Your task to perform on an android device: Show me productivity apps on the Play Store Image 0: 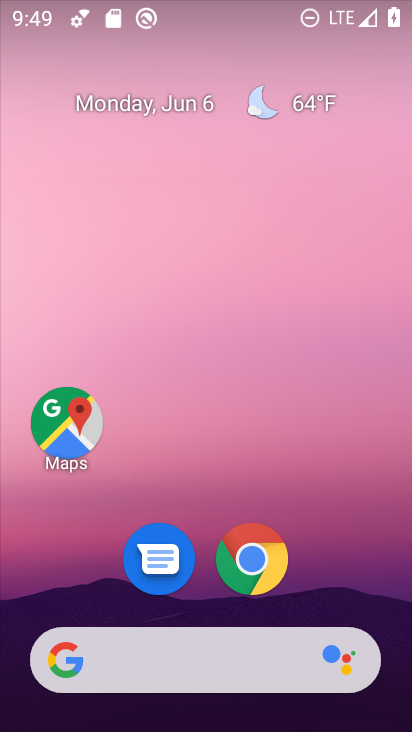
Step 0: drag from (235, 726) to (234, 73)
Your task to perform on an android device: Show me productivity apps on the Play Store Image 1: 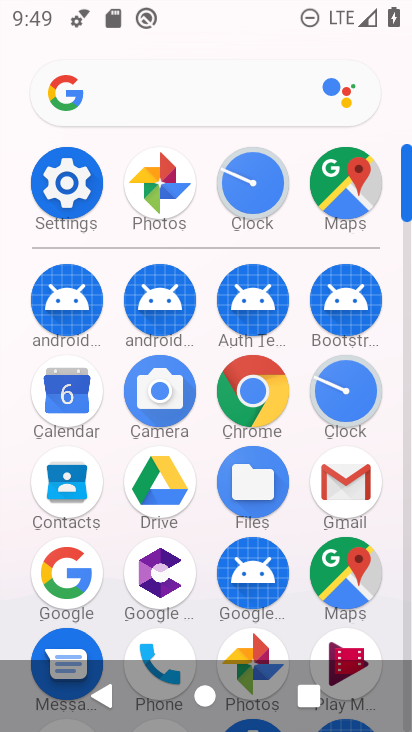
Step 1: drag from (296, 632) to (298, 286)
Your task to perform on an android device: Show me productivity apps on the Play Store Image 2: 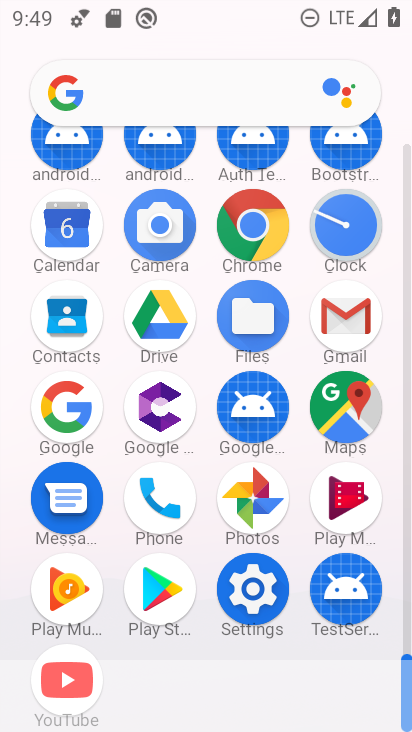
Step 2: click (171, 597)
Your task to perform on an android device: Show me productivity apps on the Play Store Image 3: 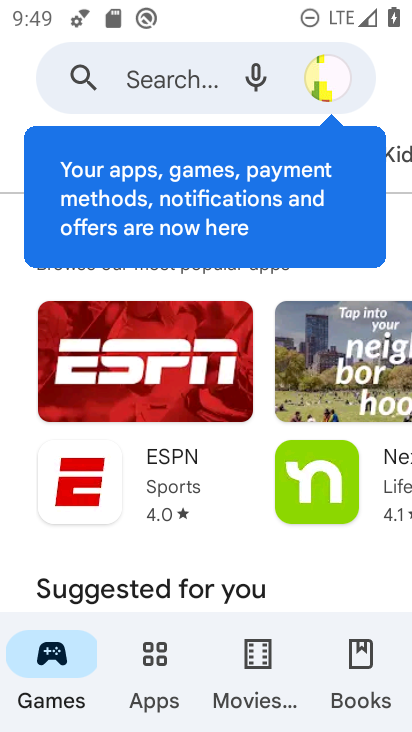
Step 3: click (161, 652)
Your task to perform on an android device: Show me productivity apps on the Play Store Image 4: 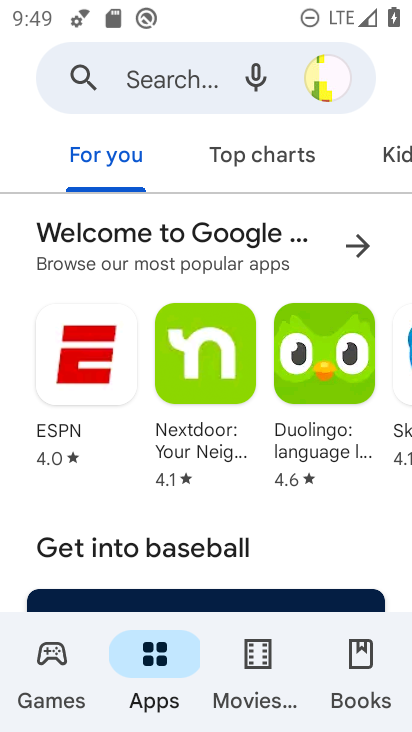
Step 4: drag from (387, 147) to (121, 172)
Your task to perform on an android device: Show me productivity apps on the Play Store Image 5: 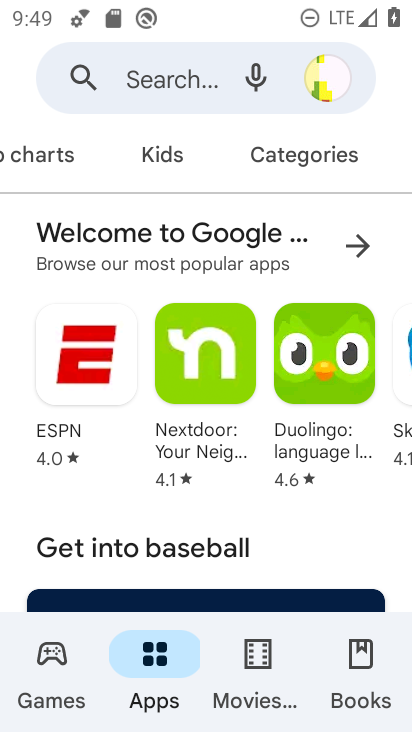
Step 5: click (285, 157)
Your task to perform on an android device: Show me productivity apps on the Play Store Image 6: 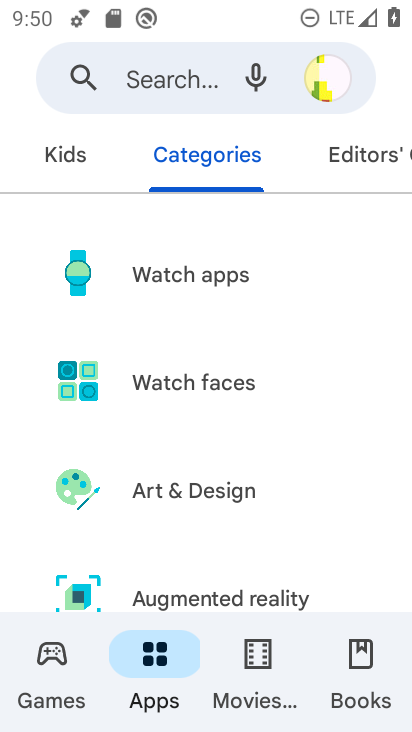
Step 6: drag from (272, 553) to (246, 218)
Your task to perform on an android device: Show me productivity apps on the Play Store Image 7: 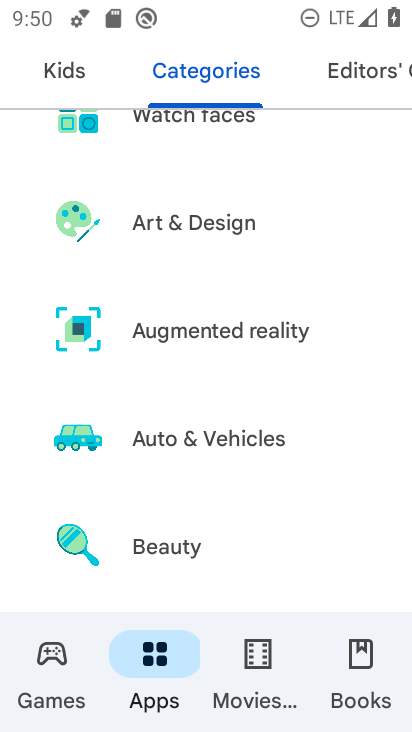
Step 7: drag from (188, 576) to (202, 238)
Your task to perform on an android device: Show me productivity apps on the Play Store Image 8: 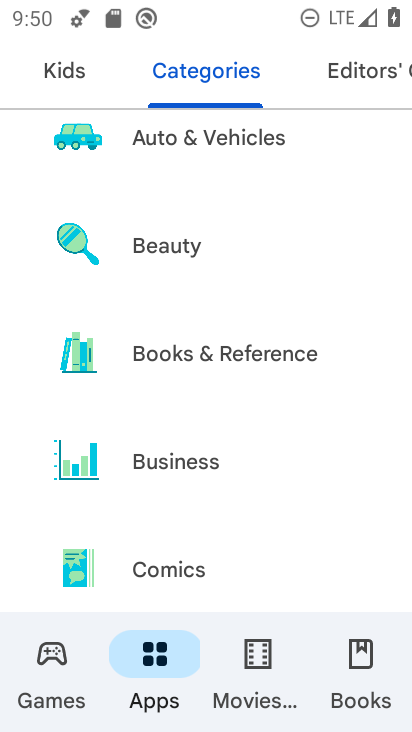
Step 8: drag from (243, 582) to (244, 323)
Your task to perform on an android device: Show me productivity apps on the Play Store Image 9: 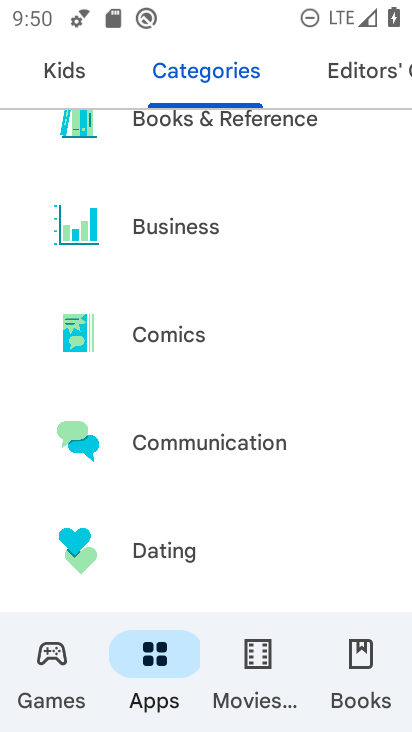
Step 9: drag from (202, 577) to (176, 262)
Your task to perform on an android device: Show me productivity apps on the Play Store Image 10: 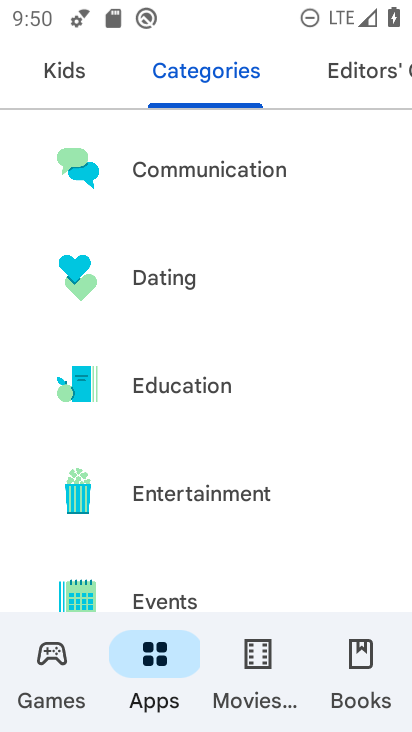
Step 10: drag from (197, 556) to (194, 285)
Your task to perform on an android device: Show me productivity apps on the Play Store Image 11: 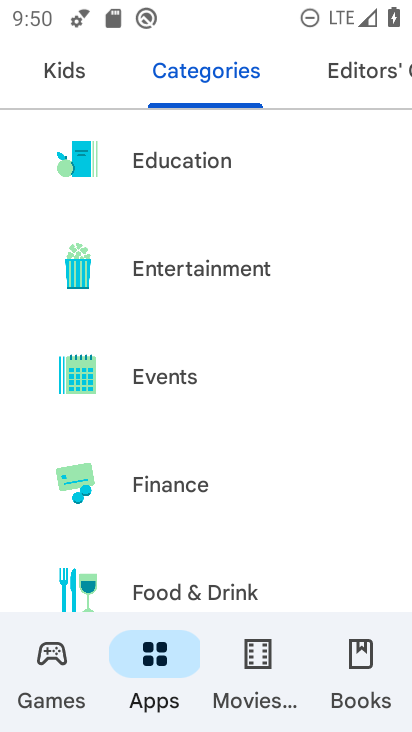
Step 11: drag from (184, 557) to (194, 288)
Your task to perform on an android device: Show me productivity apps on the Play Store Image 12: 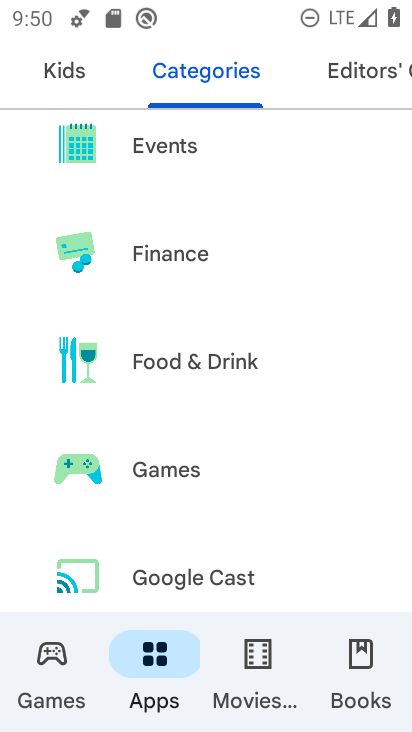
Step 12: drag from (198, 594) to (194, 242)
Your task to perform on an android device: Show me productivity apps on the Play Store Image 13: 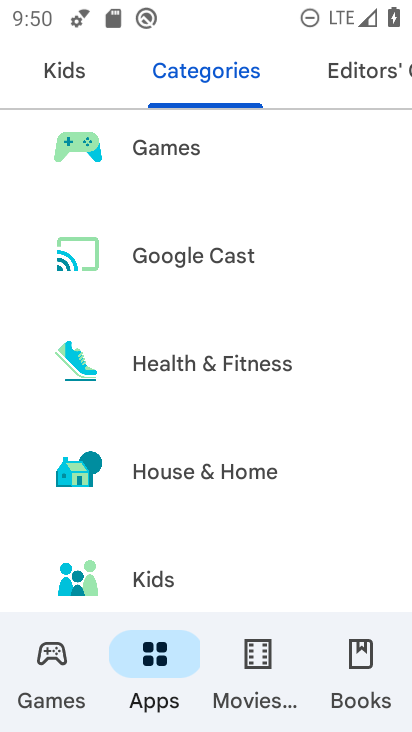
Step 13: drag from (207, 577) to (202, 276)
Your task to perform on an android device: Show me productivity apps on the Play Store Image 14: 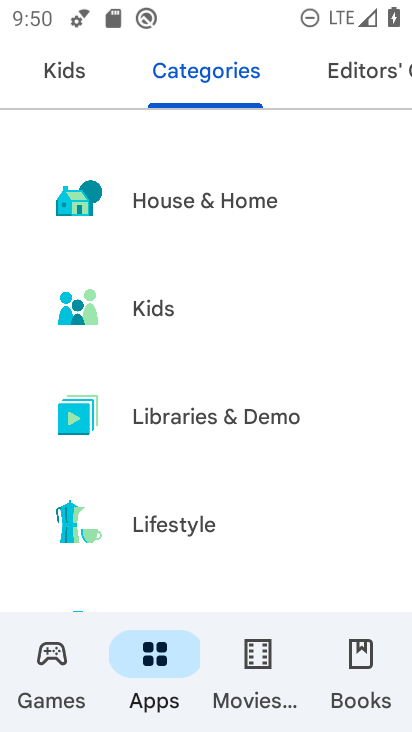
Step 14: drag from (209, 569) to (218, 276)
Your task to perform on an android device: Show me productivity apps on the Play Store Image 15: 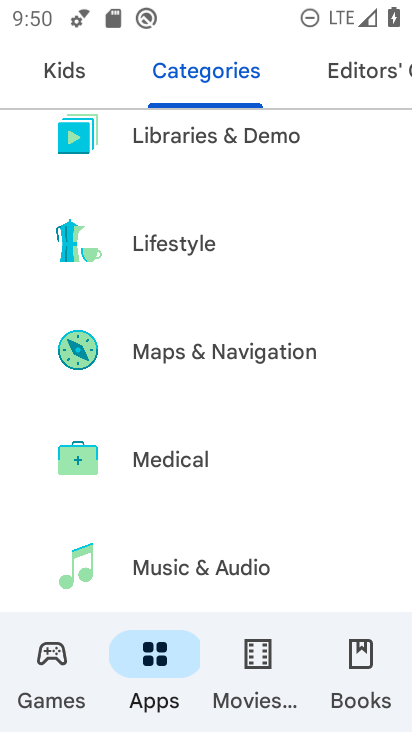
Step 15: drag from (219, 522) to (220, 220)
Your task to perform on an android device: Show me productivity apps on the Play Store Image 16: 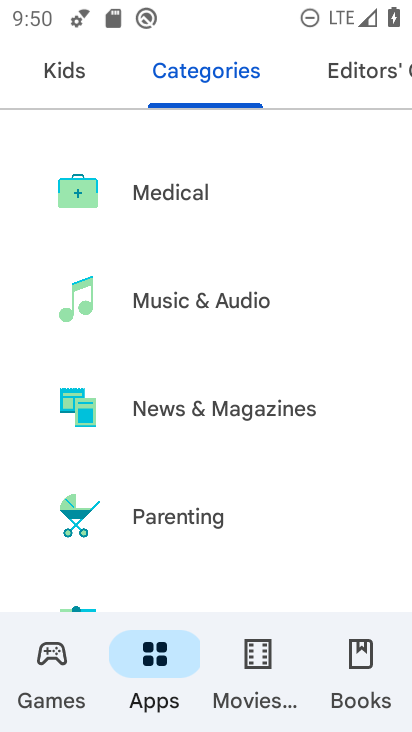
Step 16: drag from (229, 528) to (229, 254)
Your task to perform on an android device: Show me productivity apps on the Play Store Image 17: 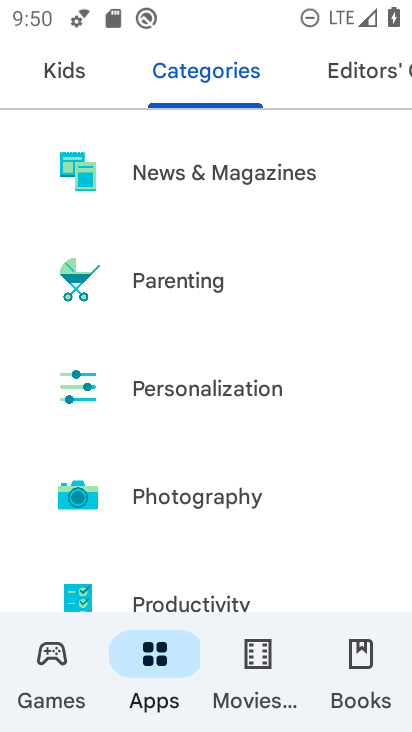
Step 17: click (203, 602)
Your task to perform on an android device: Show me productivity apps on the Play Store Image 18: 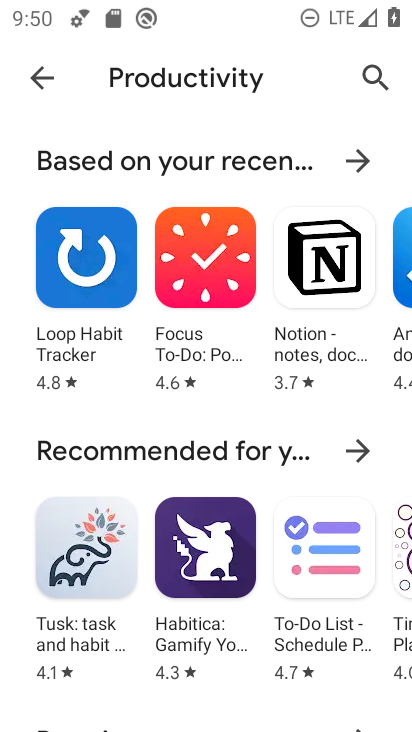
Step 18: task complete